Your task to perform on an android device: find which apps use the phone's location Image 0: 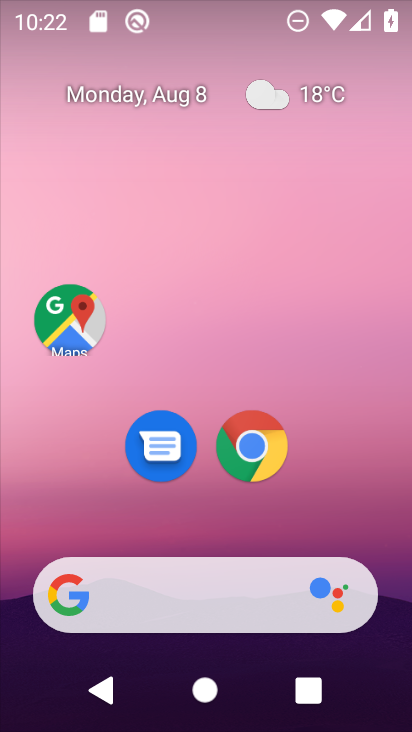
Step 0: drag from (389, 549) to (347, 143)
Your task to perform on an android device: find which apps use the phone's location Image 1: 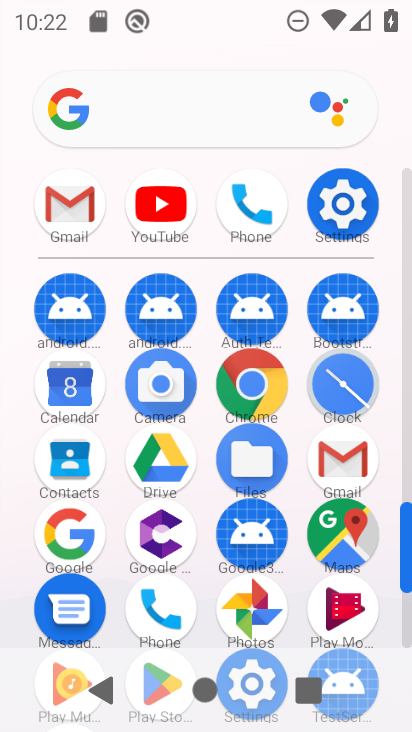
Step 1: click (409, 637)
Your task to perform on an android device: find which apps use the phone's location Image 2: 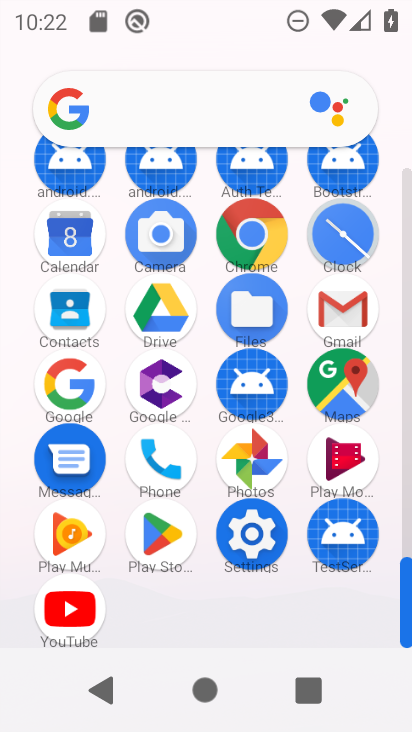
Step 2: click (248, 533)
Your task to perform on an android device: find which apps use the phone's location Image 3: 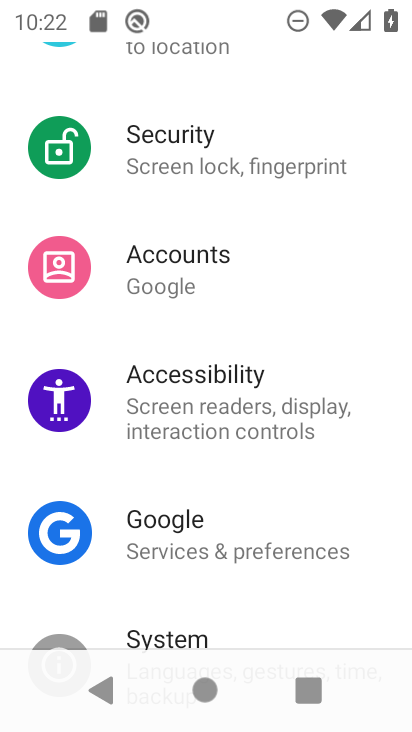
Step 3: drag from (330, 298) to (339, 525)
Your task to perform on an android device: find which apps use the phone's location Image 4: 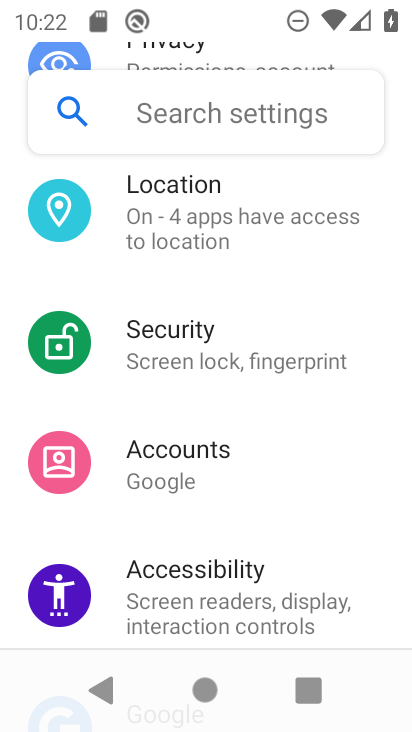
Step 4: click (161, 207)
Your task to perform on an android device: find which apps use the phone's location Image 5: 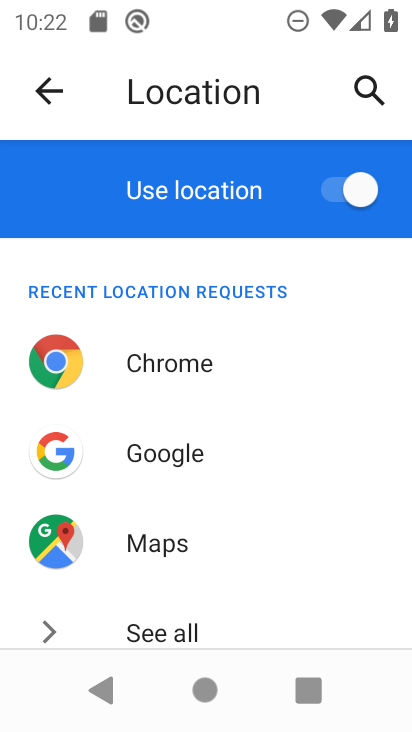
Step 5: drag from (315, 603) to (296, 139)
Your task to perform on an android device: find which apps use the phone's location Image 6: 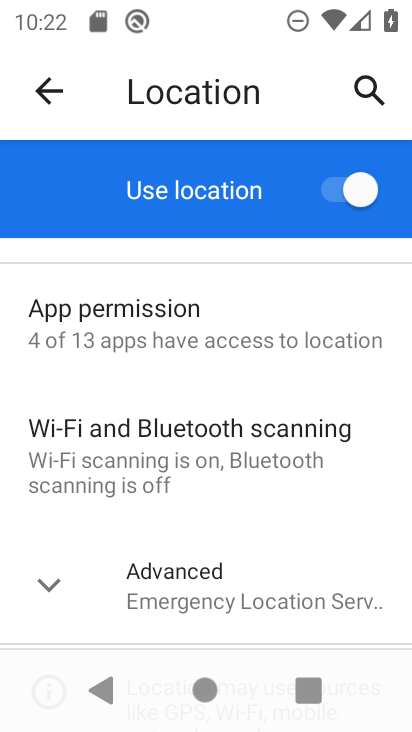
Step 6: click (99, 330)
Your task to perform on an android device: find which apps use the phone's location Image 7: 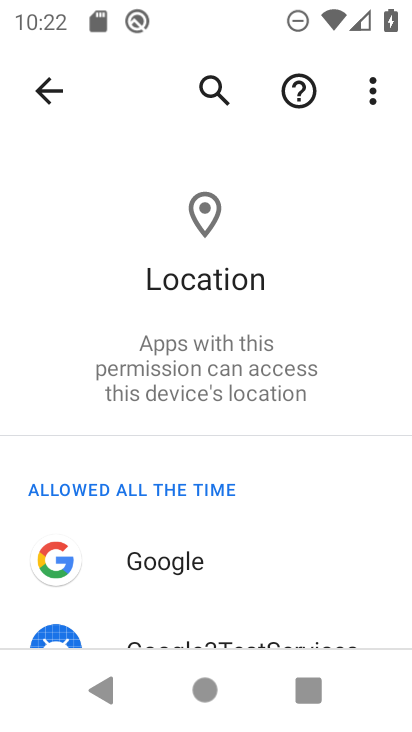
Step 7: task complete